Your task to perform on an android device: turn notification dots off Image 0: 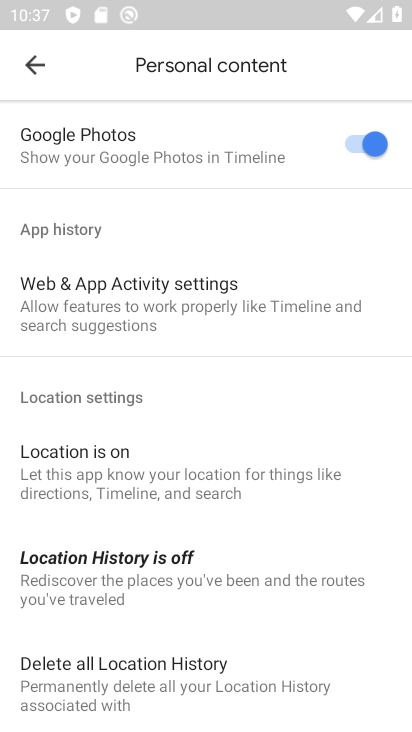
Step 0: click (28, 58)
Your task to perform on an android device: turn notification dots off Image 1: 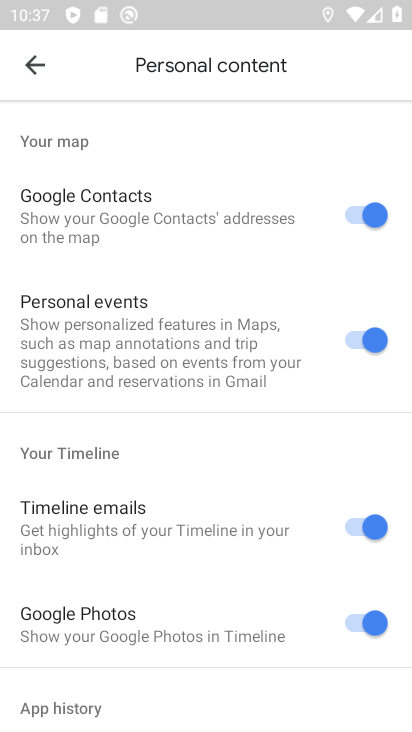
Step 1: click (28, 66)
Your task to perform on an android device: turn notification dots off Image 2: 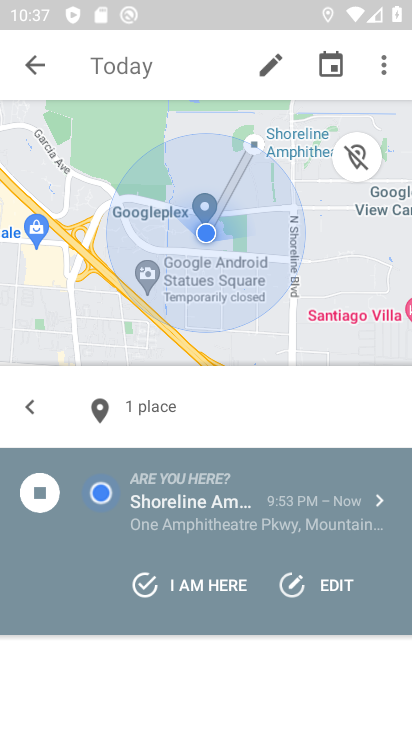
Step 2: click (31, 68)
Your task to perform on an android device: turn notification dots off Image 3: 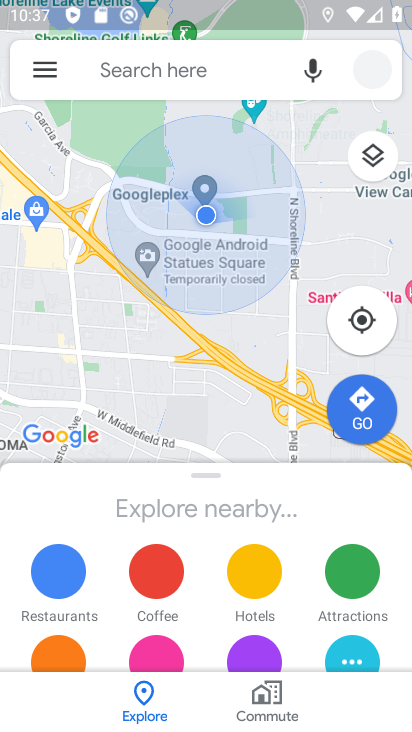
Step 3: press home button
Your task to perform on an android device: turn notification dots off Image 4: 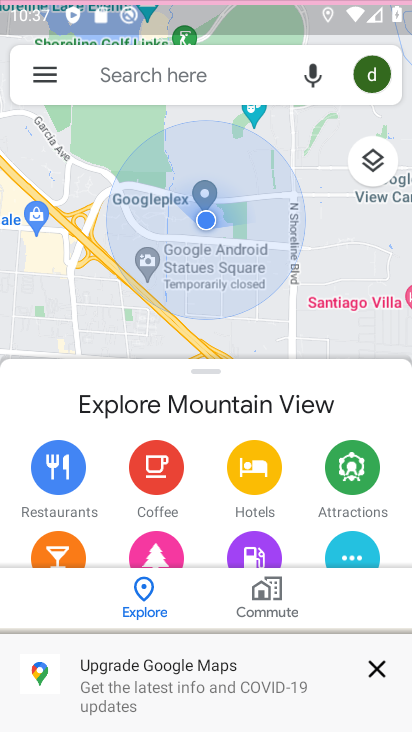
Step 4: press home button
Your task to perform on an android device: turn notification dots off Image 5: 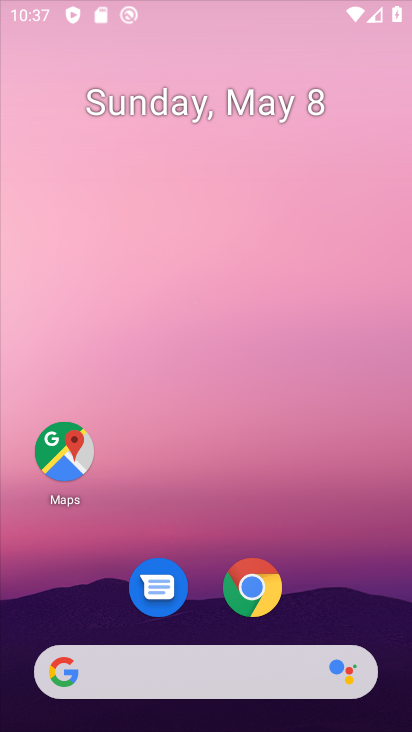
Step 5: press home button
Your task to perform on an android device: turn notification dots off Image 6: 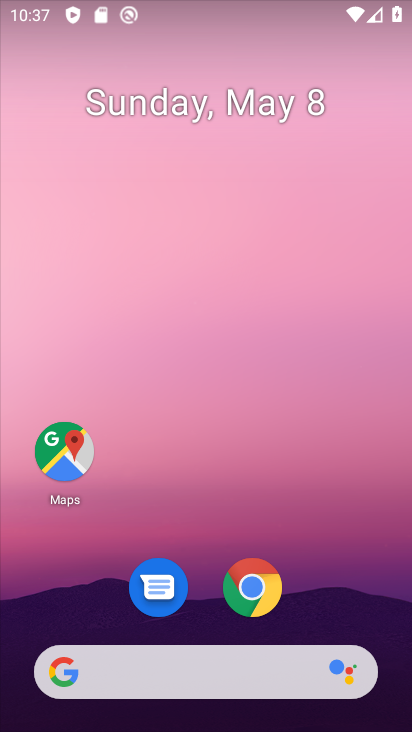
Step 6: drag from (343, 604) to (200, 5)
Your task to perform on an android device: turn notification dots off Image 7: 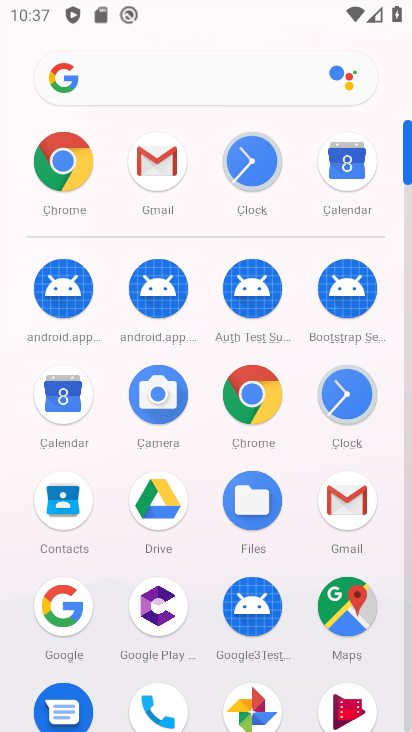
Step 7: drag from (221, 405) to (182, 221)
Your task to perform on an android device: turn notification dots off Image 8: 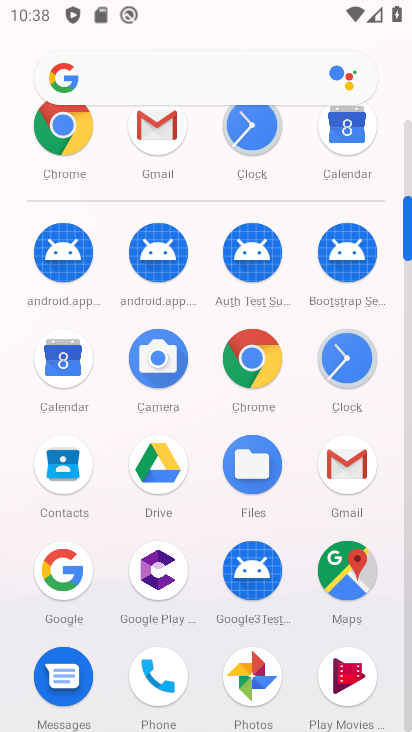
Step 8: drag from (202, 619) to (179, 187)
Your task to perform on an android device: turn notification dots off Image 9: 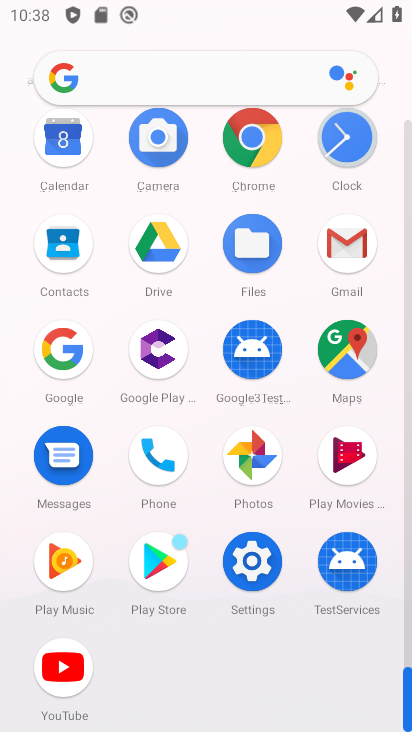
Step 9: click (254, 555)
Your task to perform on an android device: turn notification dots off Image 10: 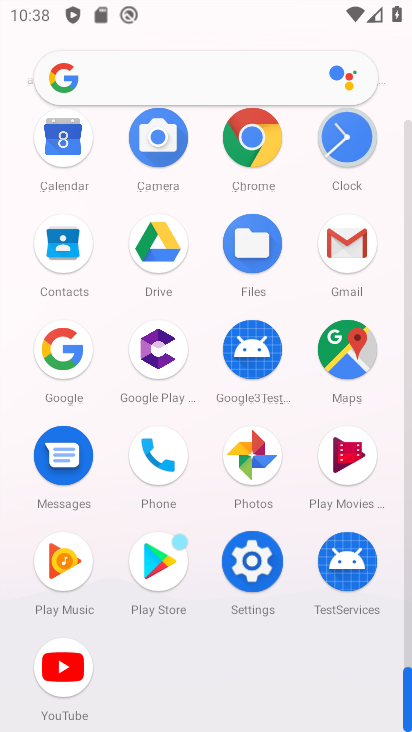
Step 10: click (255, 554)
Your task to perform on an android device: turn notification dots off Image 11: 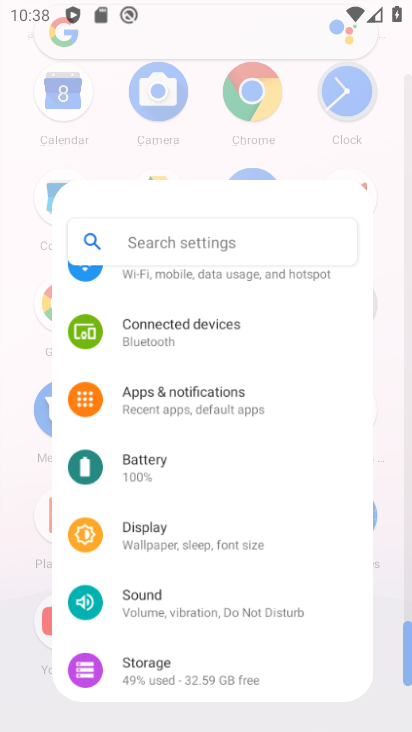
Step 11: click (256, 553)
Your task to perform on an android device: turn notification dots off Image 12: 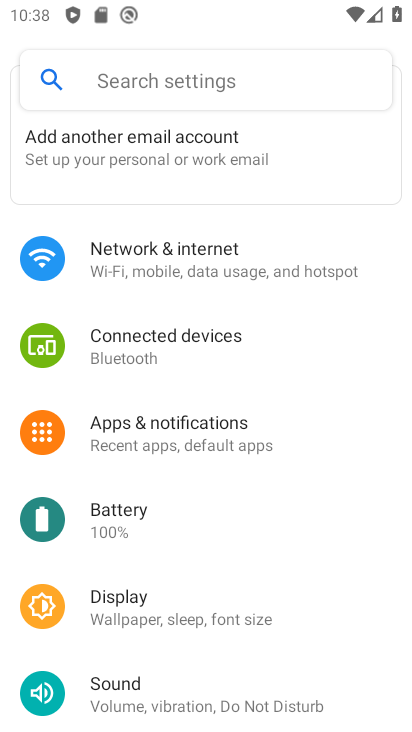
Step 12: click (154, 438)
Your task to perform on an android device: turn notification dots off Image 13: 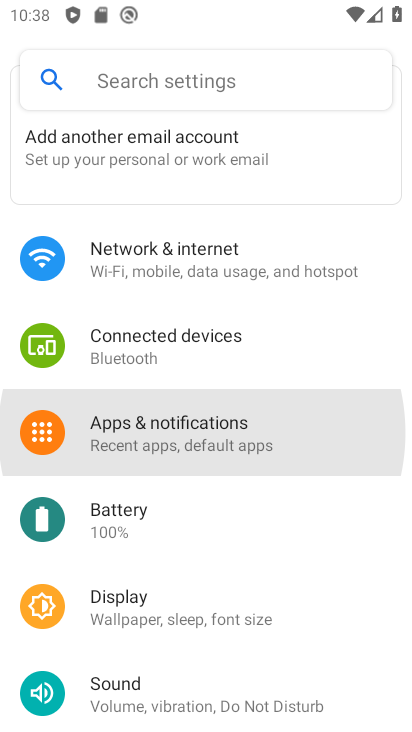
Step 13: click (153, 434)
Your task to perform on an android device: turn notification dots off Image 14: 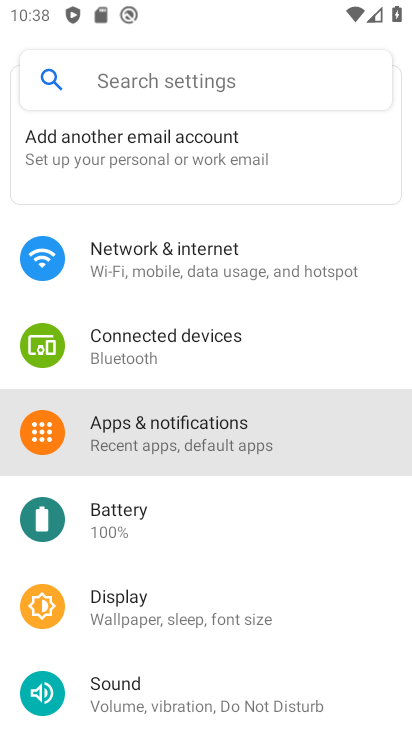
Step 14: click (153, 430)
Your task to perform on an android device: turn notification dots off Image 15: 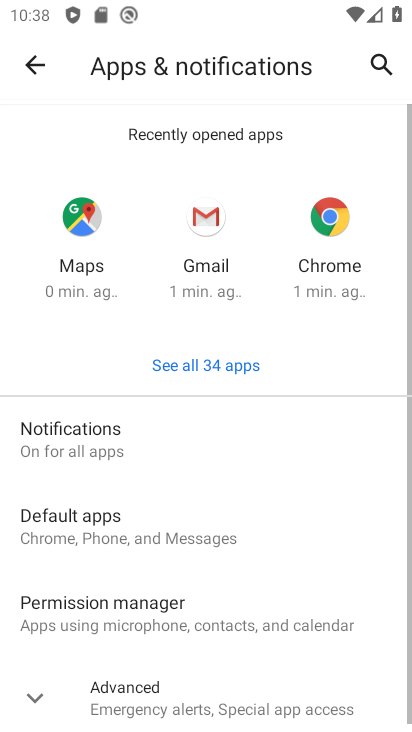
Step 15: drag from (205, 575) to (184, 140)
Your task to perform on an android device: turn notification dots off Image 16: 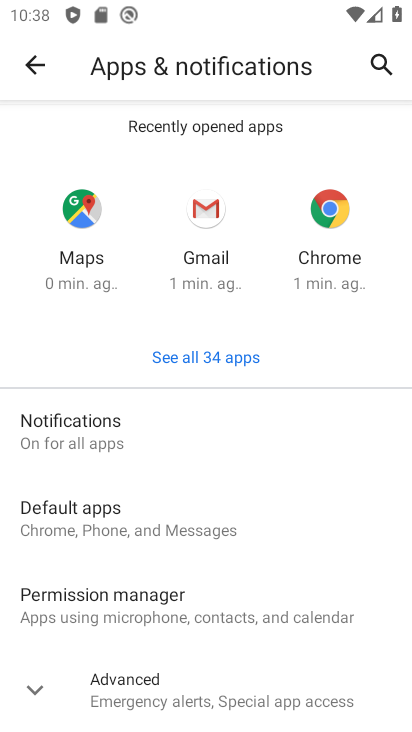
Step 16: drag from (214, 576) to (166, 251)
Your task to perform on an android device: turn notification dots off Image 17: 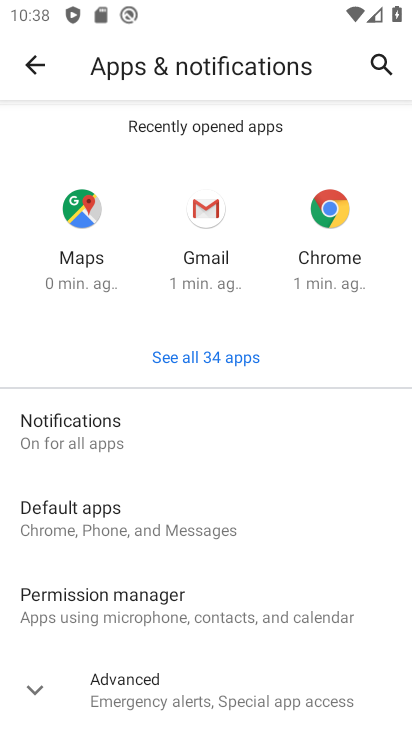
Step 17: click (137, 674)
Your task to perform on an android device: turn notification dots off Image 18: 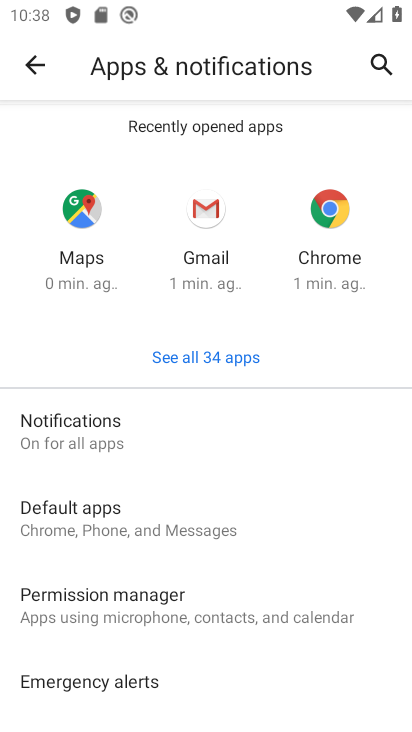
Step 18: click (89, 412)
Your task to perform on an android device: turn notification dots off Image 19: 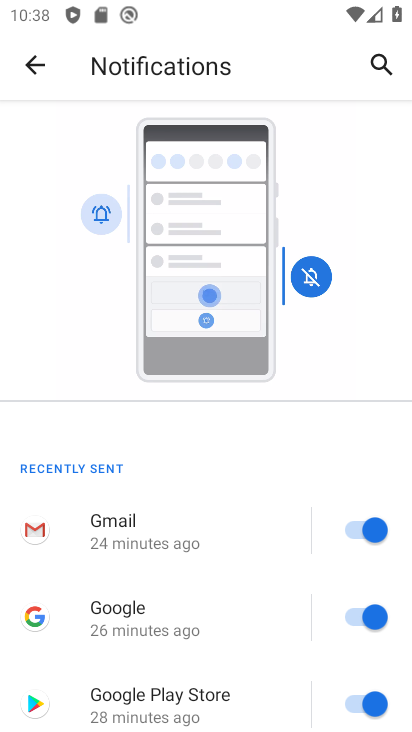
Step 19: drag from (234, 577) to (249, 245)
Your task to perform on an android device: turn notification dots off Image 20: 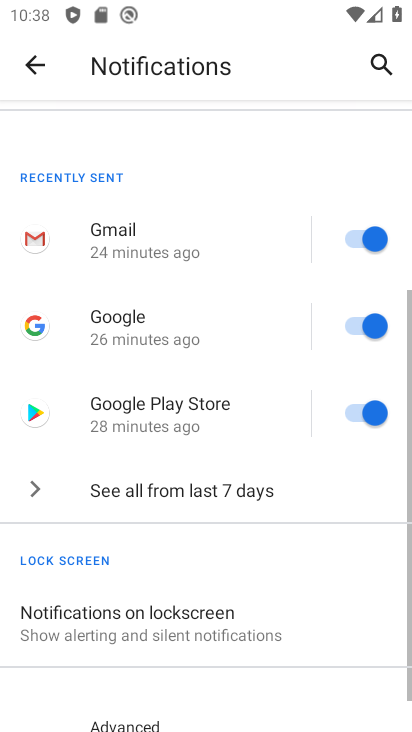
Step 20: drag from (246, 589) to (220, 124)
Your task to perform on an android device: turn notification dots off Image 21: 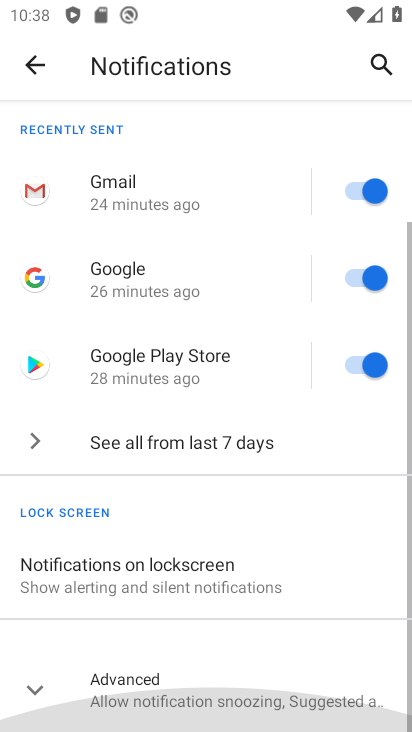
Step 21: drag from (226, 468) to (194, 33)
Your task to perform on an android device: turn notification dots off Image 22: 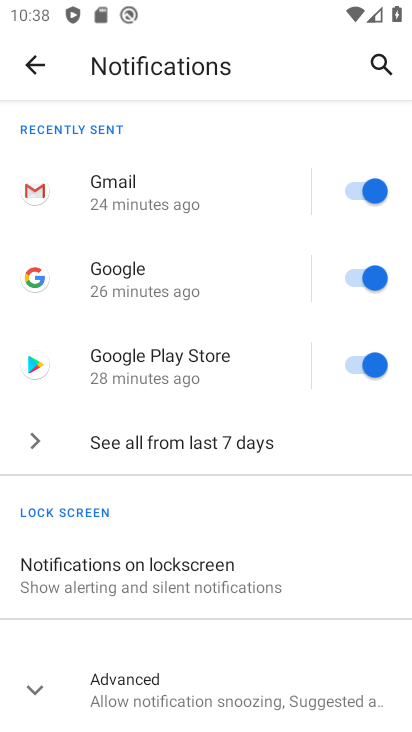
Step 22: click (160, 693)
Your task to perform on an android device: turn notification dots off Image 23: 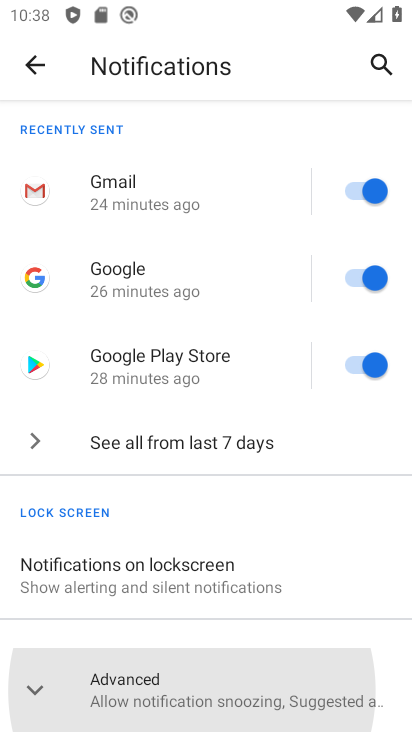
Step 23: click (160, 693)
Your task to perform on an android device: turn notification dots off Image 24: 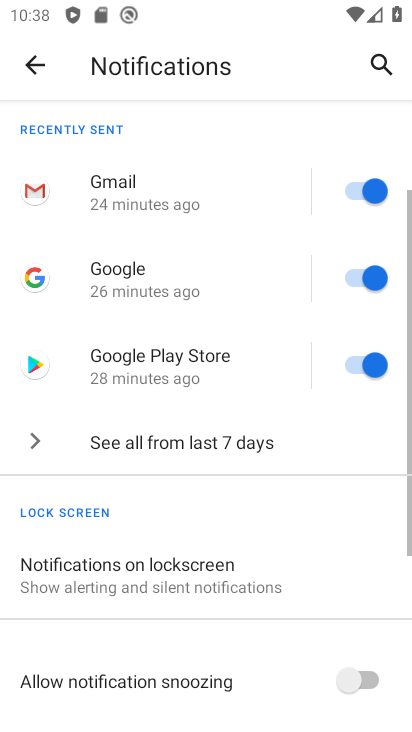
Step 24: drag from (234, 621) to (213, 81)
Your task to perform on an android device: turn notification dots off Image 25: 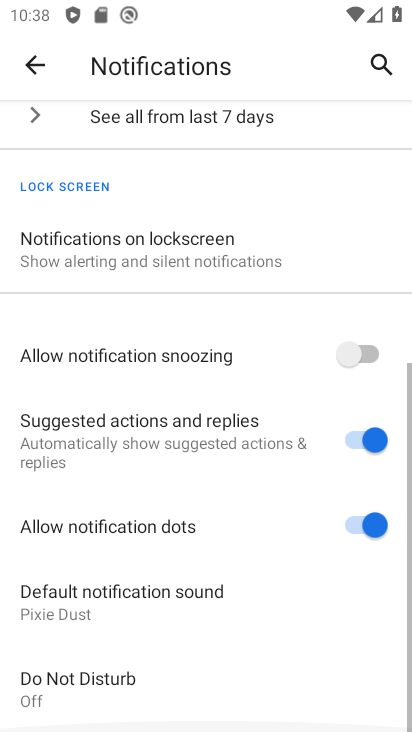
Step 25: drag from (272, 561) to (249, 121)
Your task to perform on an android device: turn notification dots off Image 26: 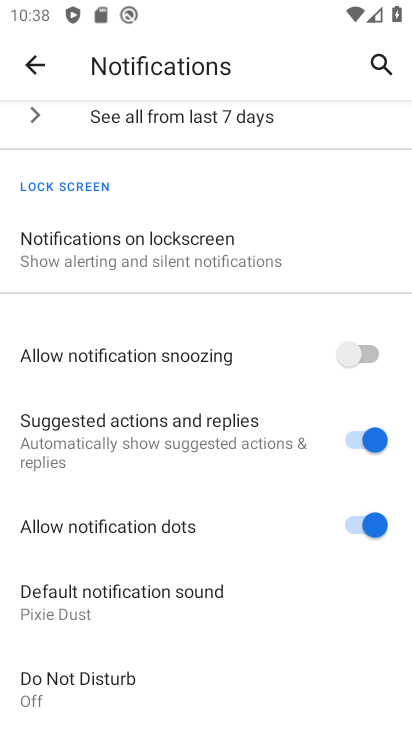
Step 26: click (377, 516)
Your task to perform on an android device: turn notification dots off Image 27: 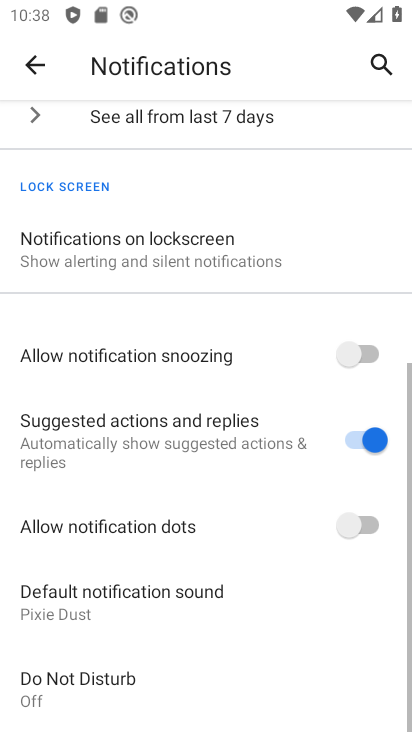
Step 27: task complete